Your task to perform on an android device: What's on my calendar tomorrow? Image 0: 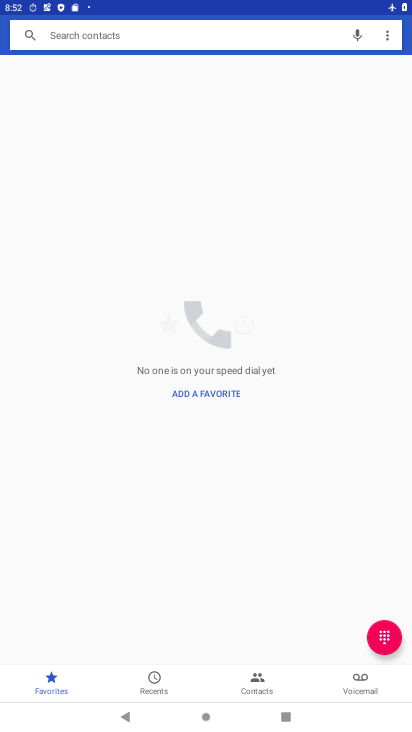
Step 0: press home button
Your task to perform on an android device: What's on my calendar tomorrow? Image 1: 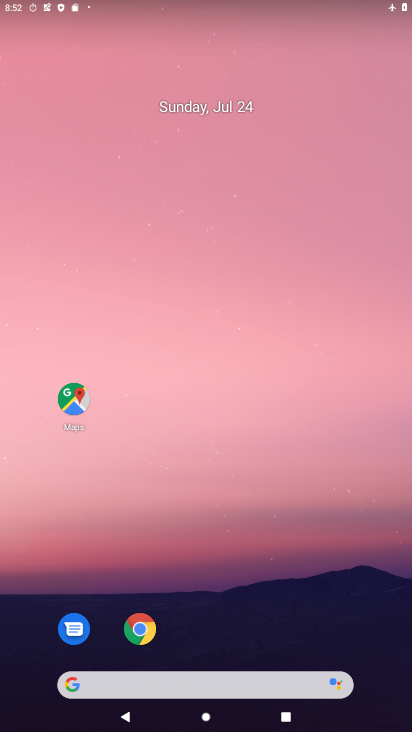
Step 1: drag from (171, 622) to (227, 66)
Your task to perform on an android device: What's on my calendar tomorrow? Image 2: 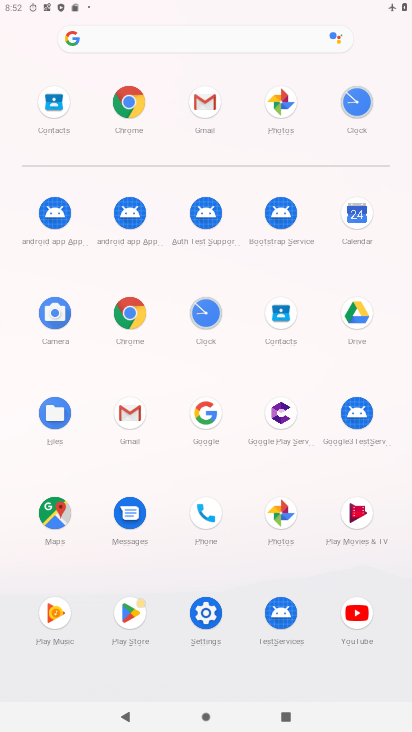
Step 2: click (359, 229)
Your task to perform on an android device: What's on my calendar tomorrow? Image 3: 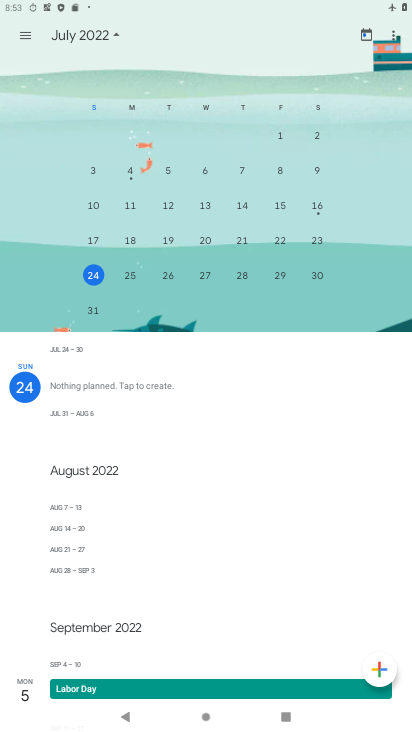
Step 3: click (129, 285)
Your task to perform on an android device: What's on my calendar tomorrow? Image 4: 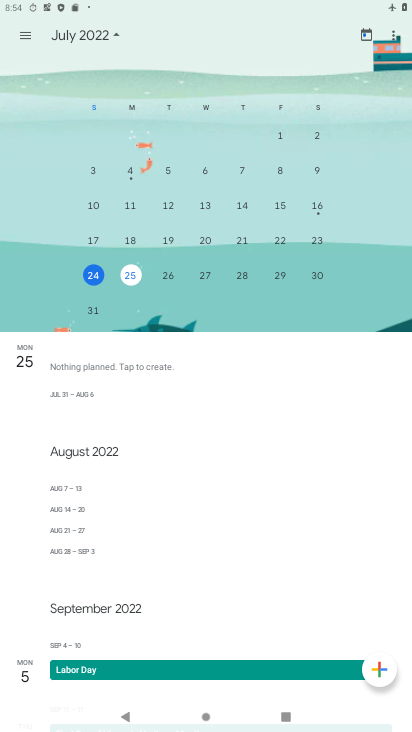
Step 4: task complete